Your task to perform on an android device: refresh tabs in the chrome app Image 0: 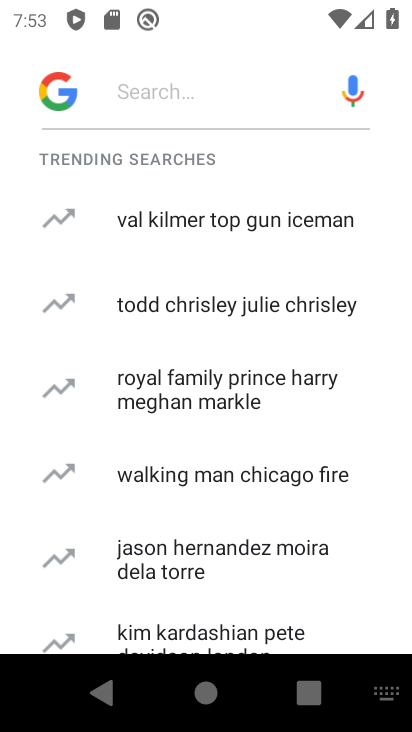
Step 0: drag from (215, 473) to (269, 174)
Your task to perform on an android device: refresh tabs in the chrome app Image 1: 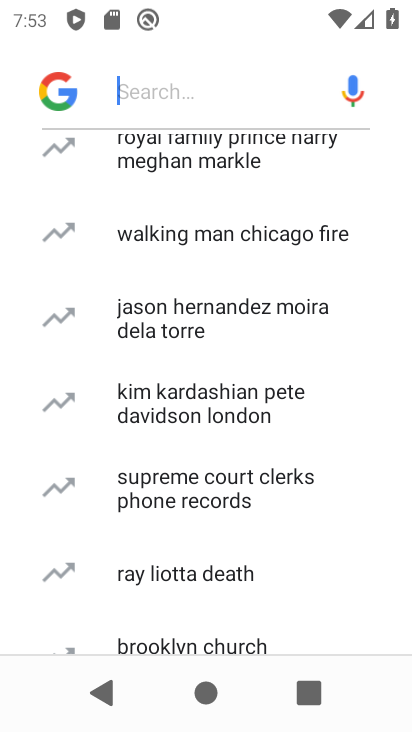
Step 1: press home button
Your task to perform on an android device: refresh tabs in the chrome app Image 2: 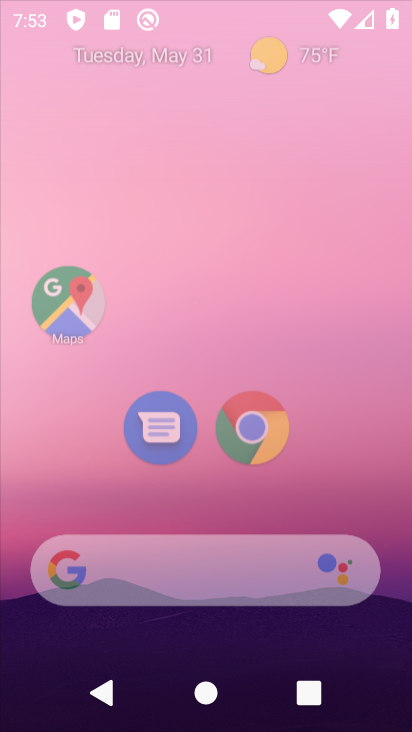
Step 2: drag from (237, 616) to (309, 174)
Your task to perform on an android device: refresh tabs in the chrome app Image 3: 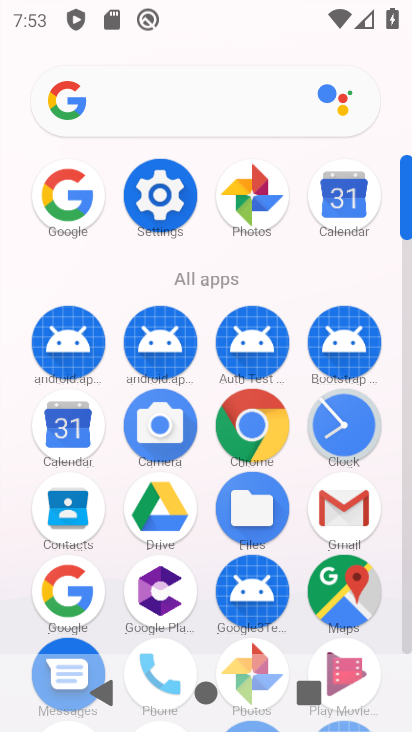
Step 3: click (257, 416)
Your task to perform on an android device: refresh tabs in the chrome app Image 4: 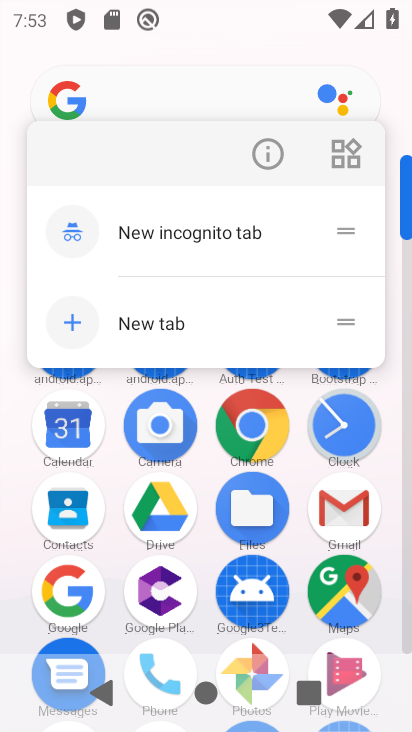
Step 4: click (280, 147)
Your task to perform on an android device: refresh tabs in the chrome app Image 5: 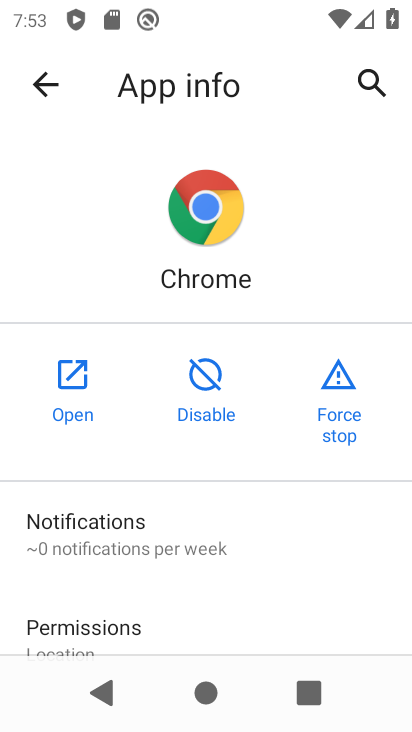
Step 5: click (95, 374)
Your task to perform on an android device: refresh tabs in the chrome app Image 6: 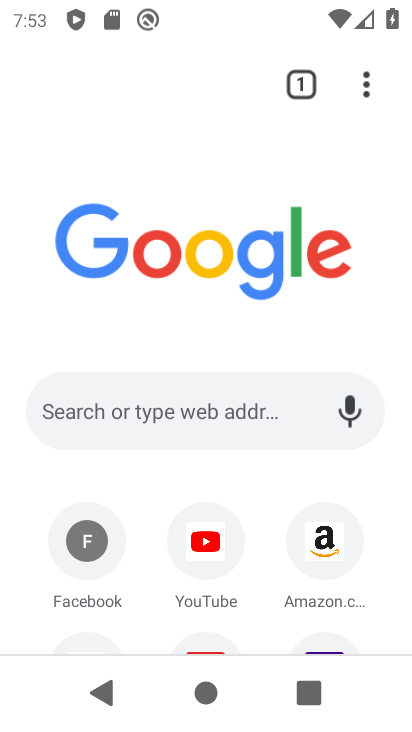
Step 6: click (370, 80)
Your task to perform on an android device: refresh tabs in the chrome app Image 7: 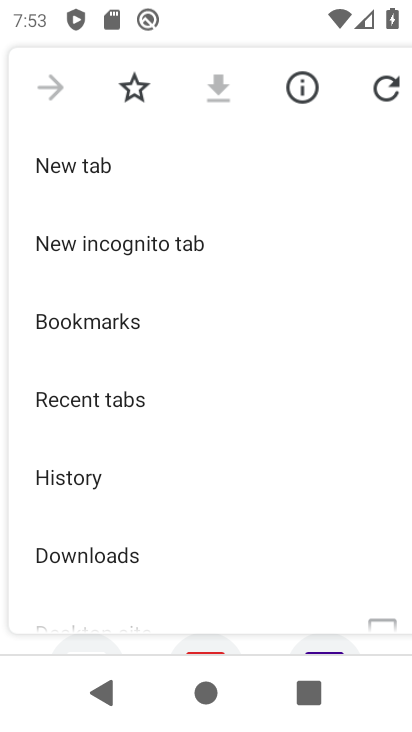
Step 7: click (370, 80)
Your task to perform on an android device: refresh tabs in the chrome app Image 8: 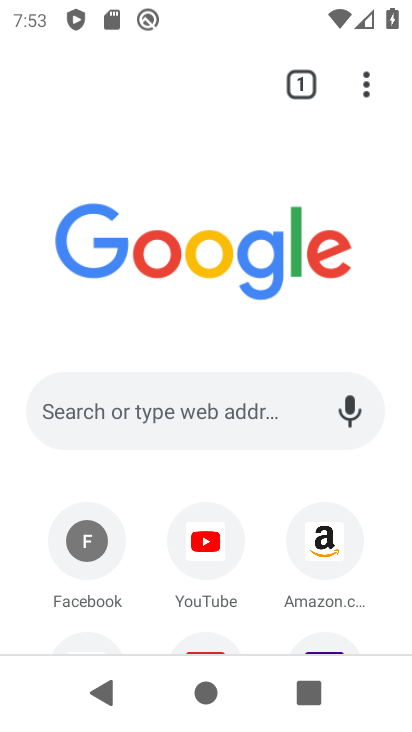
Step 8: task complete